Your task to perform on an android device: open the mobile data screen to see how much data has been used Image 0: 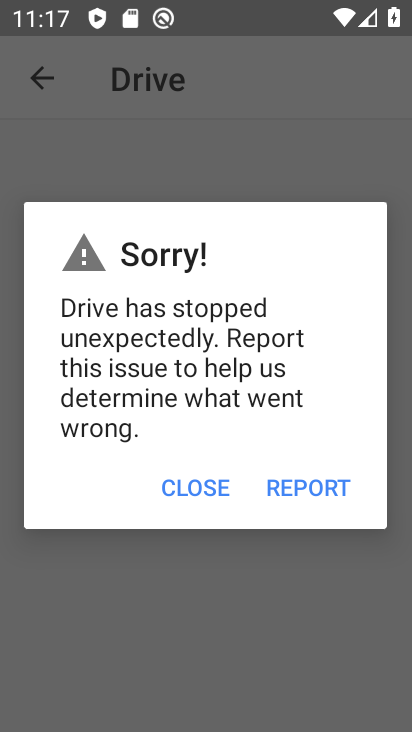
Step 0: press home button
Your task to perform on an android device: open the mobile data screen to see how much data has been used Image 1: 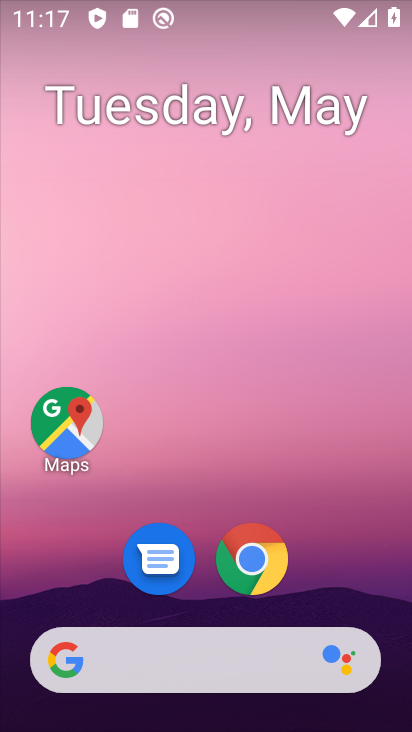
Step 1: drag from (85, 602) to (178, 228)
Your task to perform on an android device: open the mobile data screen to see how much data has been used Image 2: 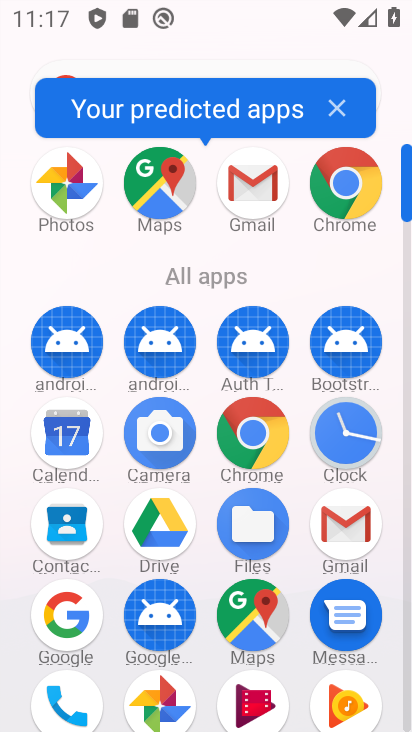
Step 2: drag from (218, 632) to (266, 398)
Your task to perform on an android device: open the mobile data screen to see how much data has been used Image 3: 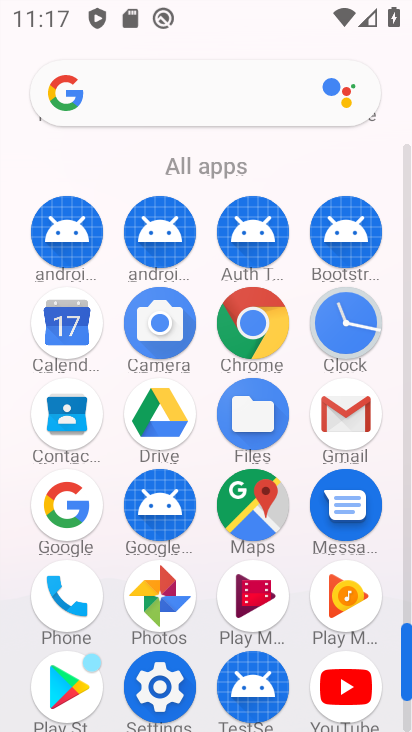
Step 3: click (159, 699)
Your task to perform on an android device: open the mobile data screen to see how much data has been used Image 4: 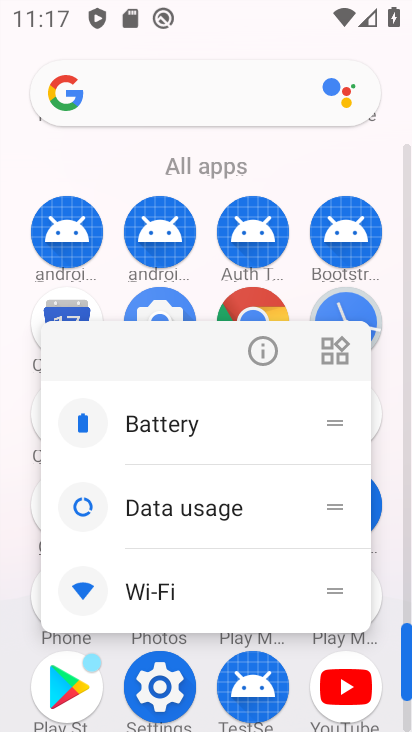
Step 4: click (159, 689)
Your task to perform on an android device: open the mobile data screen to see how much data has been used Image 5: 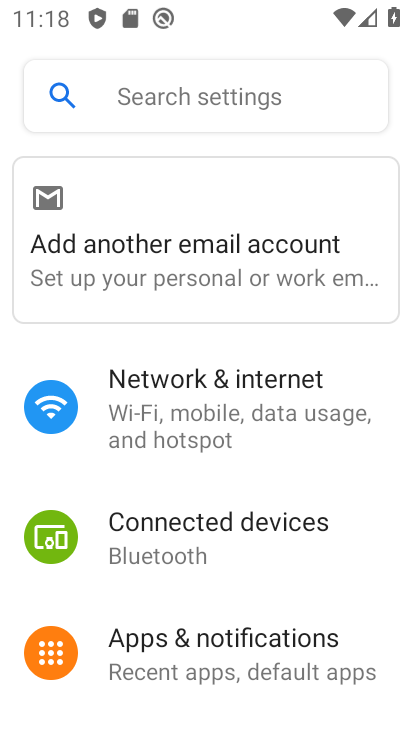
Step 5: click (246, 441)
Your task to perform on an android device: open the mobile data screen to see how much data has been used Image 6: 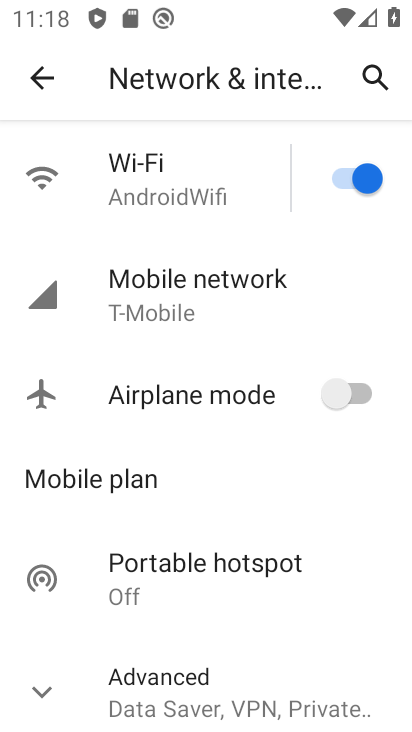
Step 6: click (257, 288)
Your task to perform on an android device: open the mobile data screen to see how much data has been used Image 7: 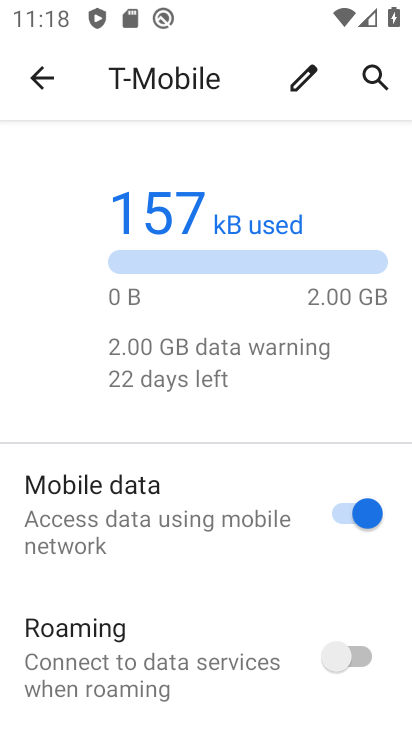
Step 7: task complete